Your task to perform on an android device: Open Youtube and go to the subscriptions tab Image 0: 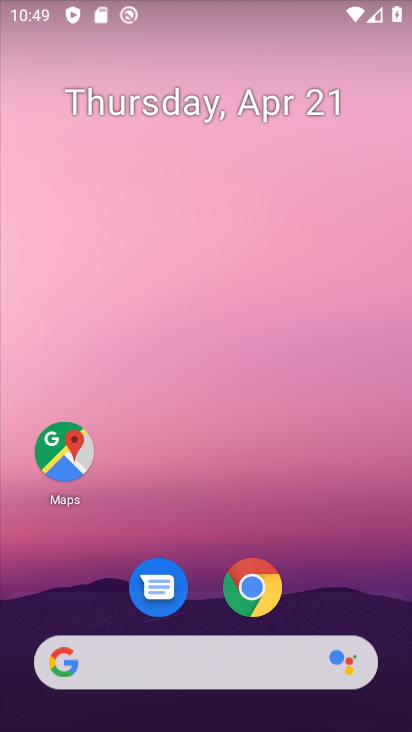
Step 0: drag from (204, 573) to (236, 128)
Your task to perform on an android device: Open Youtube and go to the subscriptions tab Image 1: 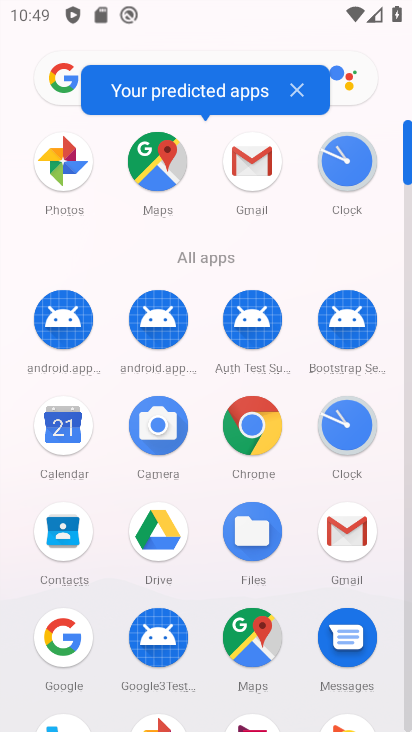
Step 1: drag from (260, 610) to (275, 116)
Your task to perform on an android device: Open Youtube and go to the subscriptions tab Image 2: 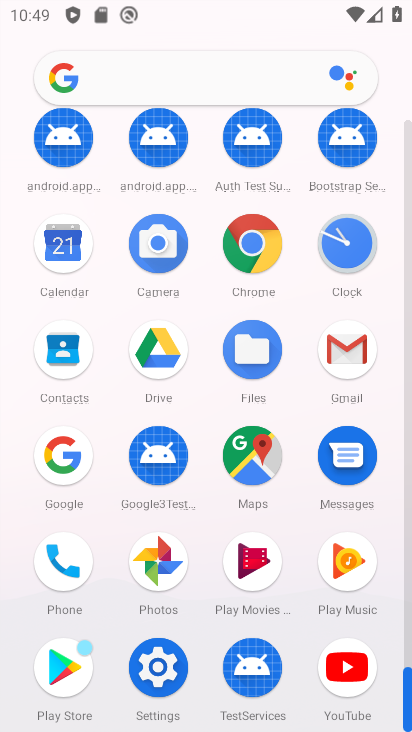
Step 2: click (357, 658)
Your task to perform on an android device: Open Youtube and go to the subscriptions tab Image 3: 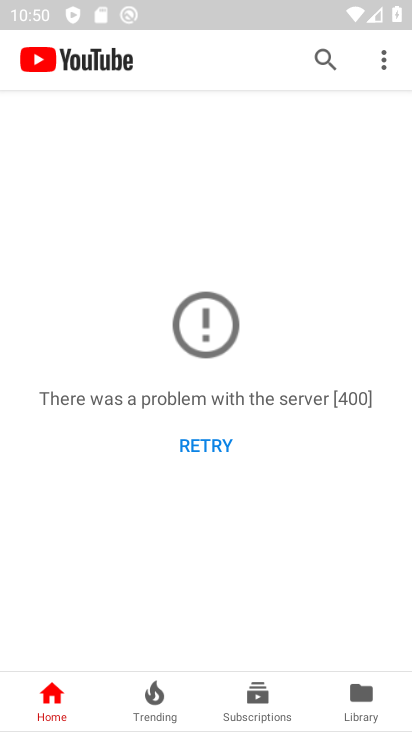
Step 3: click (369, 698)
Your task to perform on an android device: Open Youtube and go to the subscriptions tab Image 4: 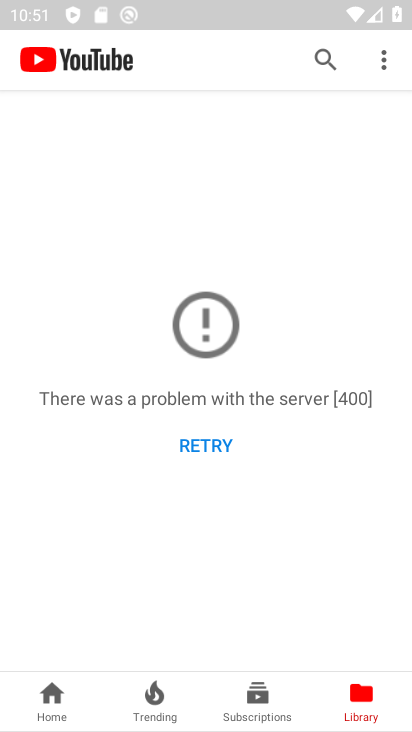
Step 4: click (247, 699)
Your task to perform on an android device: Open Youtube and go to the subscriptions tab Image 5: 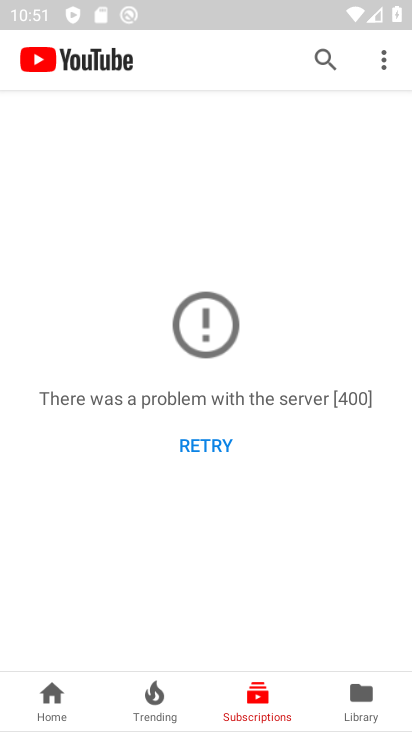
Step 5: task complete